Your task to perform on an android device: delete a single message in the gmail app Image 0: 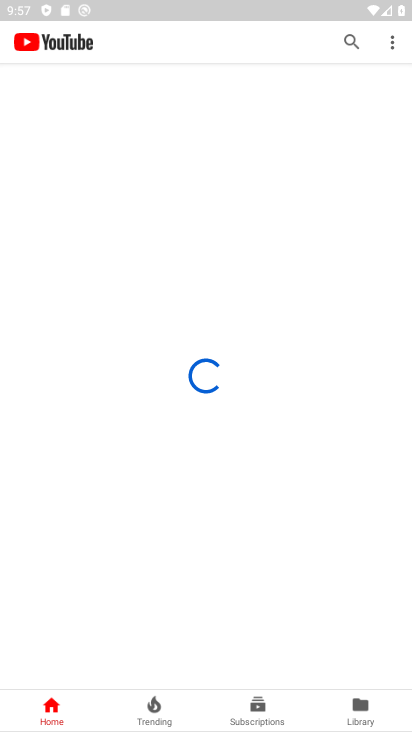
Step 0: press home button
Your task to perform on an android device: delete a single message in the gmail app Image 1: 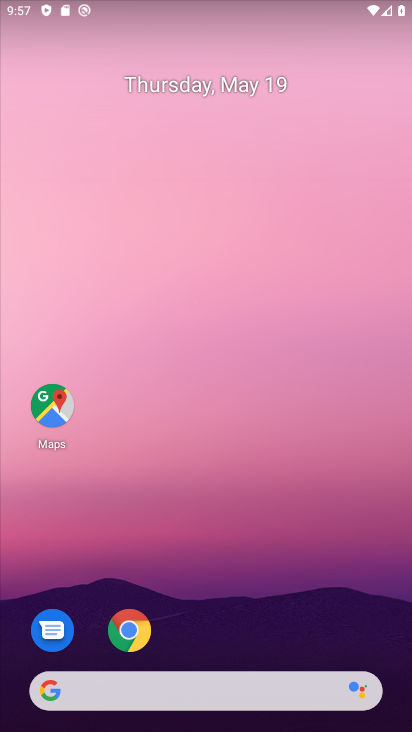
Step 1: drag from (299, 652) to (325, 201)
Your task to perform on an android device: delete a single message in the gmail app Image 2: 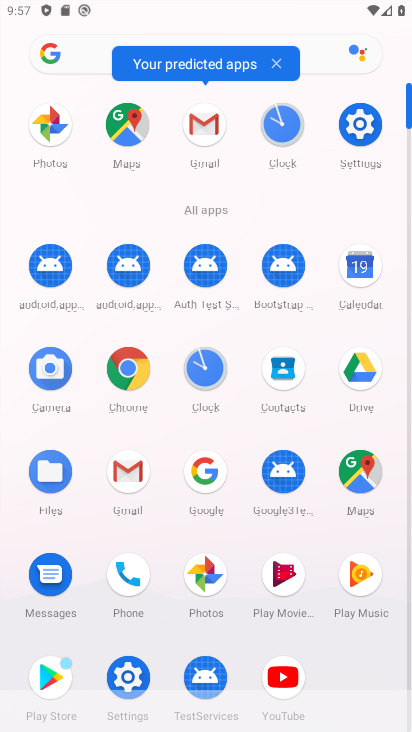
Step 2: click (117, 484)
Your task to perform on an android device: delete a single message in the gmail app Image 3: 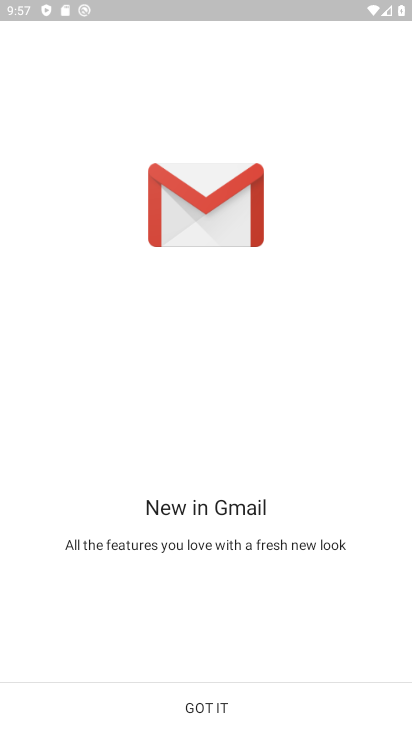
Step 3: click (231, 720)
Your task to perform on an android device: delete a single message in the gmail app Image 4: 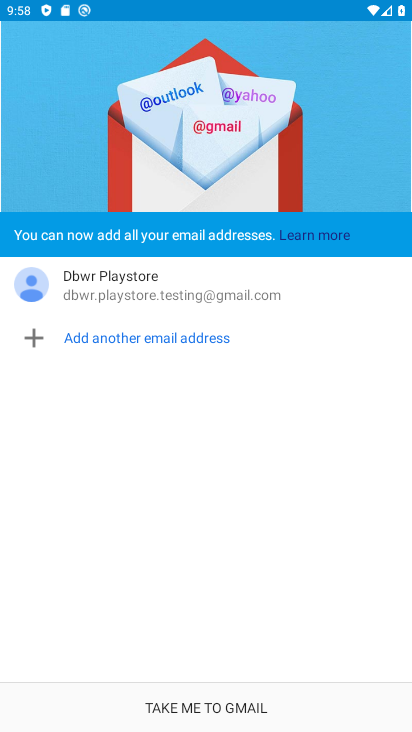
Step 4: click (230, 713)
Your task to perform on an android device: delete a single message in the gmail app Image 5: 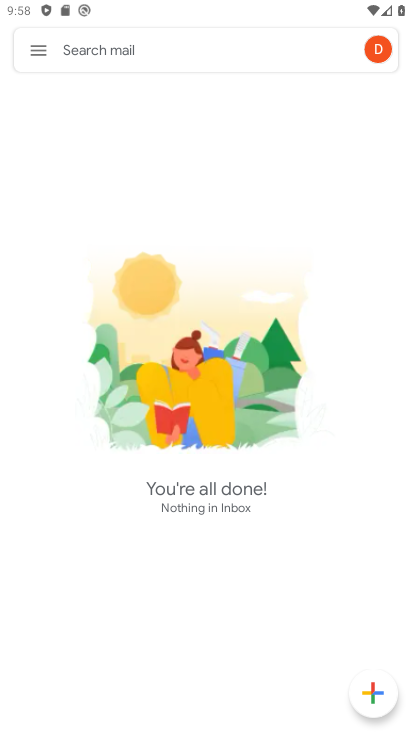
Step 5: click (32, 51)
Your task to perform on an android device: delete a single message in the gmail app Image 6: 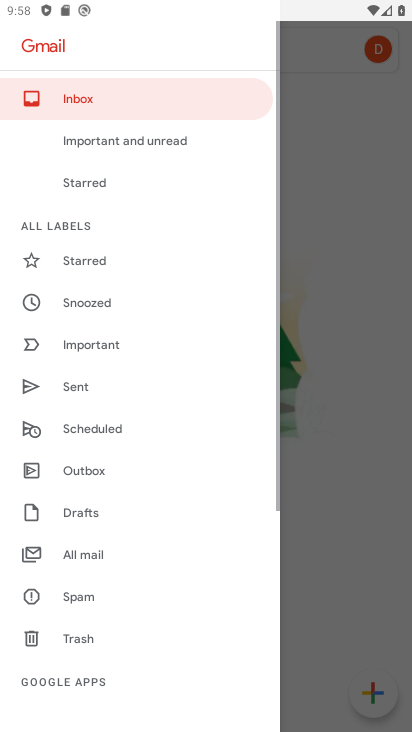
Step 6: click (95, 564)
Your task to perform on an android device: delete a single message in the gmail app Image 7: 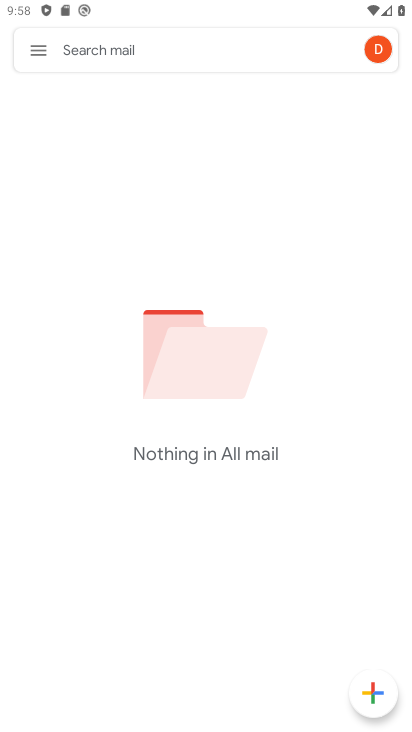
Step 7: task complete